Your task to perform on an android device: Go to settings Image 0: 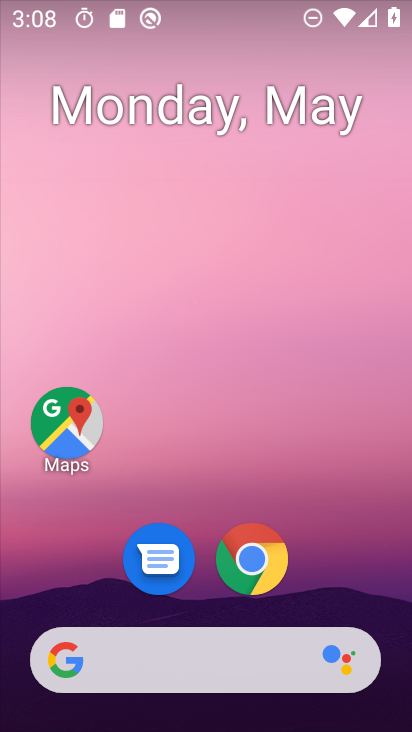
Step 0: drag from (215, 610) to (264, 160)
Your task to perform on an android device: Go to settings Image 1: 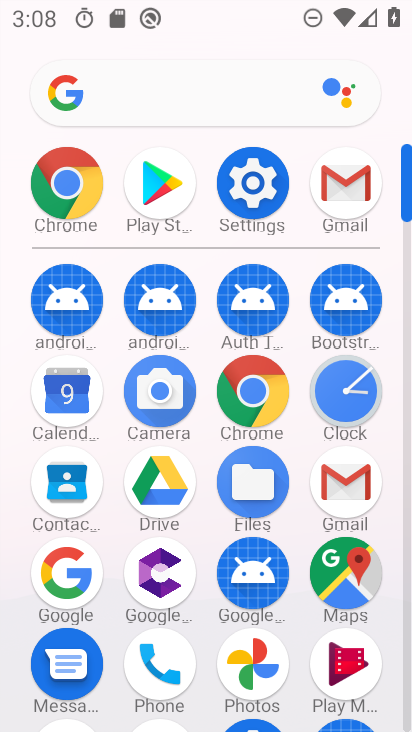
Step 1: click (260, 184)
Your task to perform on an android device: Go to settings Image 2: 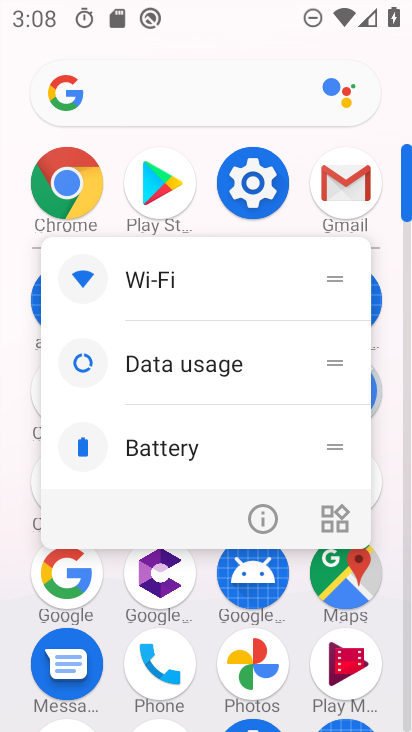
Step 2: click (280, 523)
Your task to perform on an android device: Go to settings Image 3: 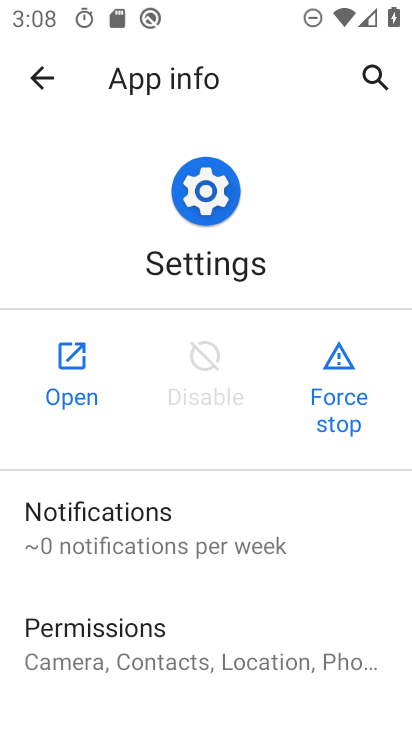
Step 3: click (70, 378)
Your task to perform on an android device: Go to settings Image 4: 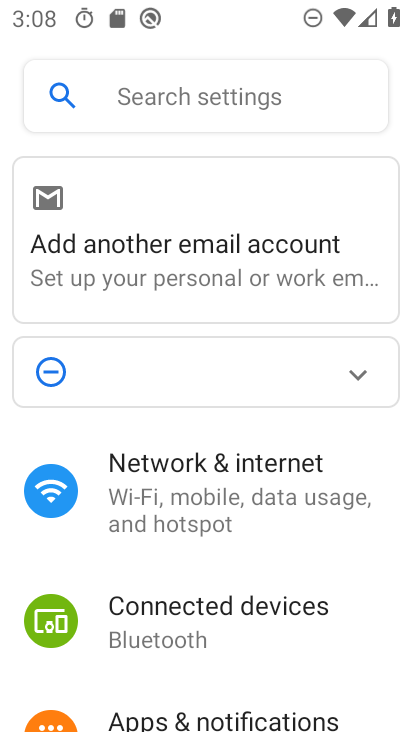
Step 4: task complete